Your task to perform on an android device: choose inbox layout in the gmail app Image 0: 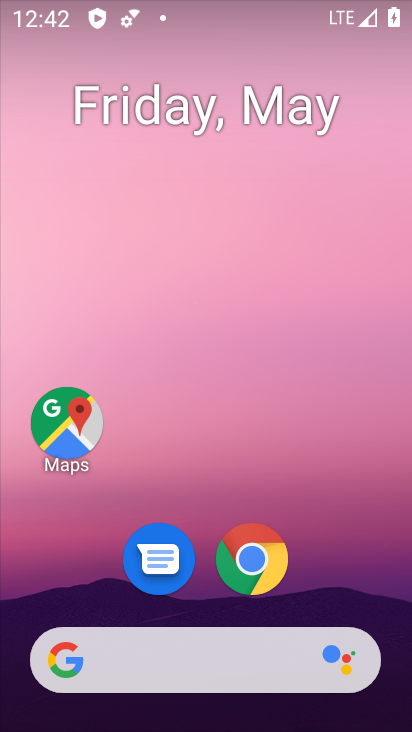
Step 0: drag from (370, 553) to (394, 159)
Your task to perform on an android device: choose inbox layout in the gmail app Image 1: 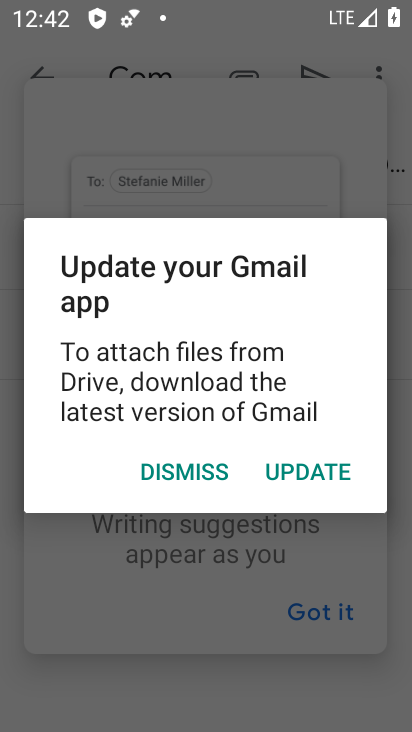
Step 1: press home button
Your task to perform on an android device: choose inbox layout in the gmail app Image 2: 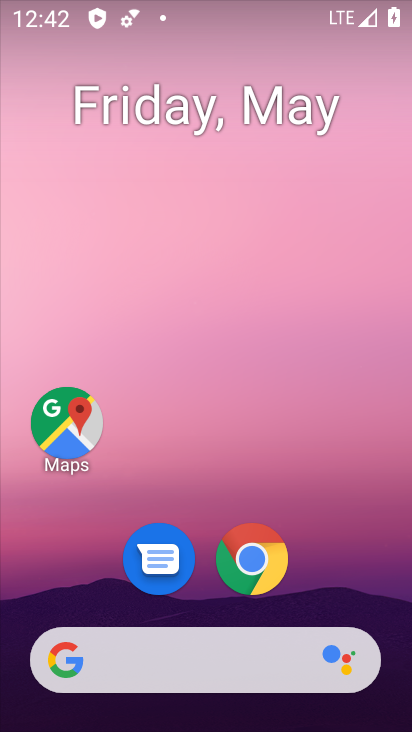
Step 2: drag from (315, 578) to (350, 128)
Your task to perform on an android device: choose inbox layout in the gmail app Image 3: 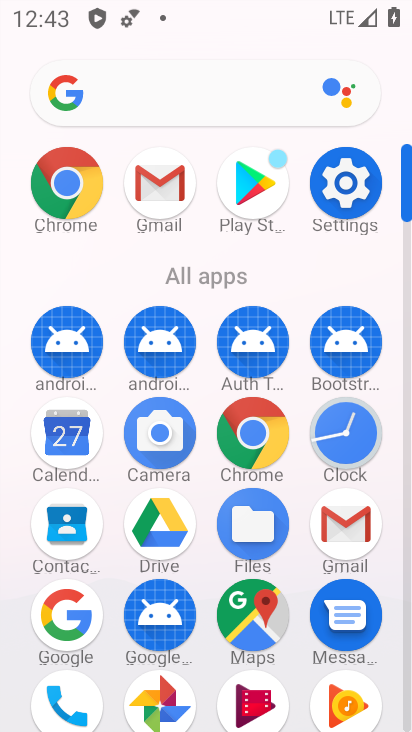
Step 3: click (152, 170)
Your task to perform on an android device: choose inbox layout in the gmail app Image 4: 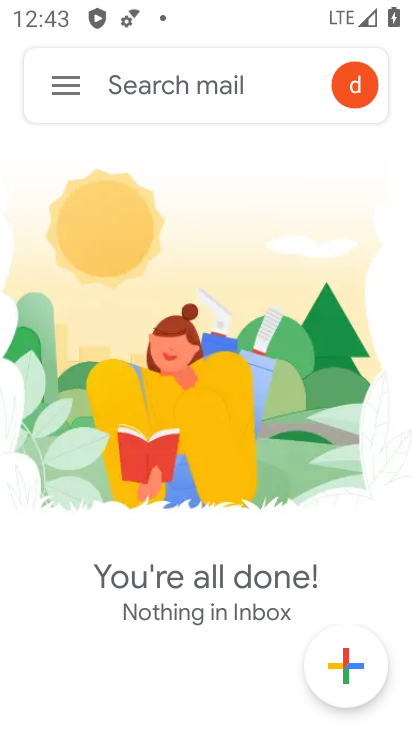
Step 4: click (67, 94)
Your task to perform on an android device: choose inbox layout in the gmail app Image 5: 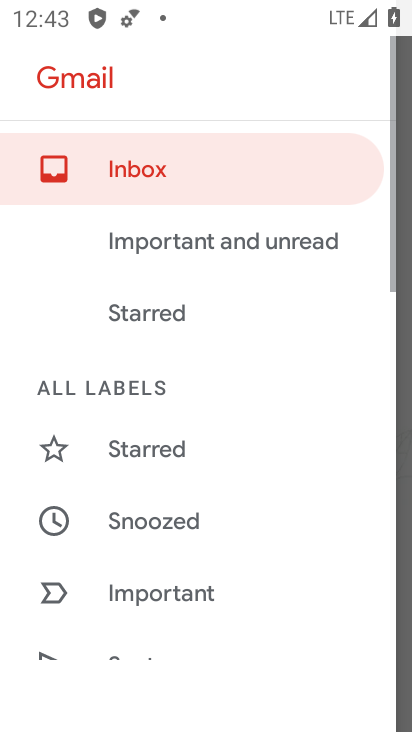
Step 5: drag from (173, 569) to (250, 73)
Your task to perform on an android device: choose inbox layout in the gmail app Image 6: 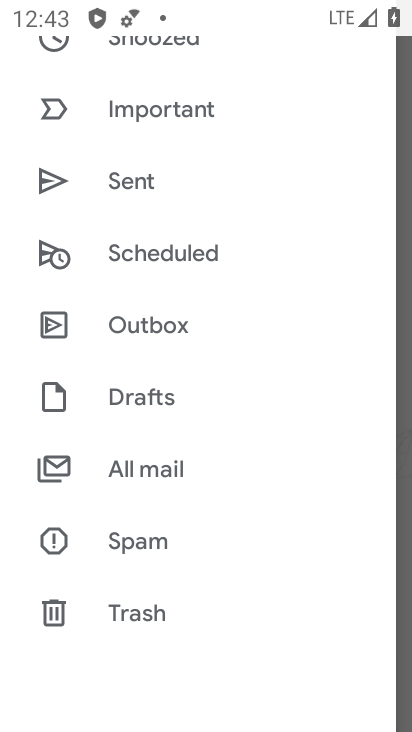
Step 6: drag from (187, 623) to (312, 142)
Your task to perform on an android device: choose inbox layout in the gmail app Image 7: 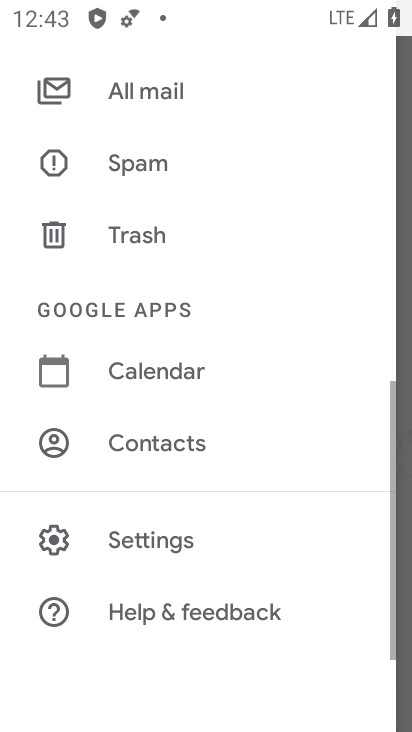
Step 7: click (143, 544)
Your task to perform on an android device: choose inbox layout in the gmail app Image 8: 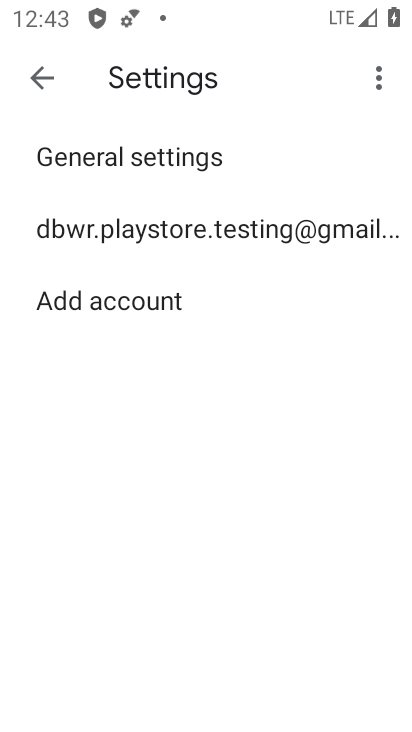
Step 8: click (213, 227)
Your task to perform on an android device: choose inbox layout in the gmail app Image 9: 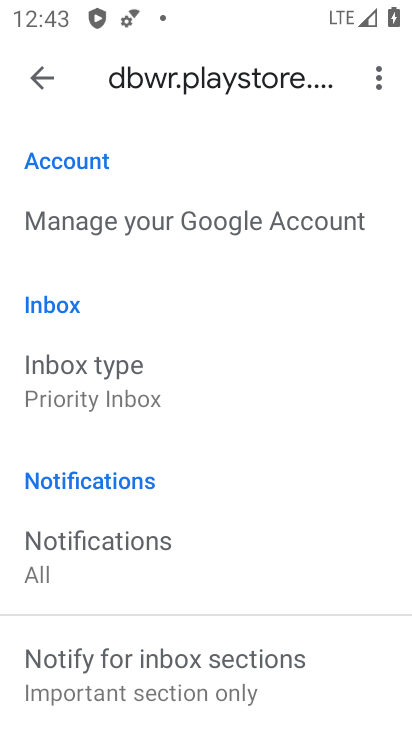
Step 9: click (155, 377)
Your task to perform on an android device: choose inbox layout in the gmail app Image 10: 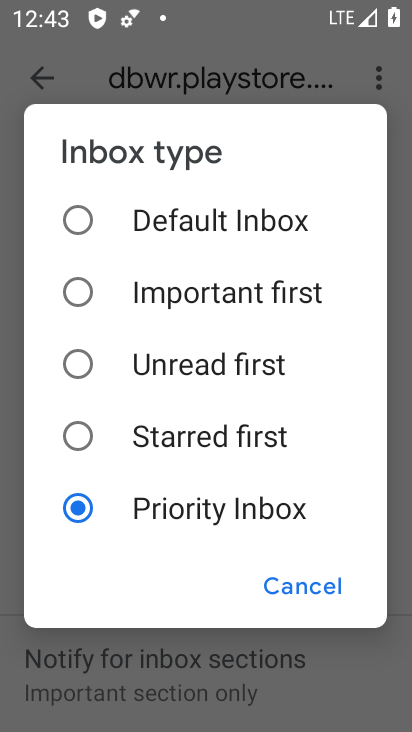
Step 10: click (161, 226)
Your task to perform on an android device: choose inbox layout in the gmail app Image 11: 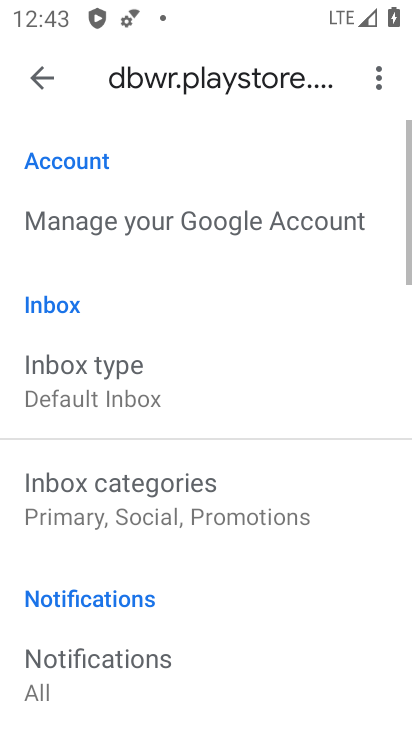
Step 11: task complete